Your task to perform on an android device: Open maps Image 0: 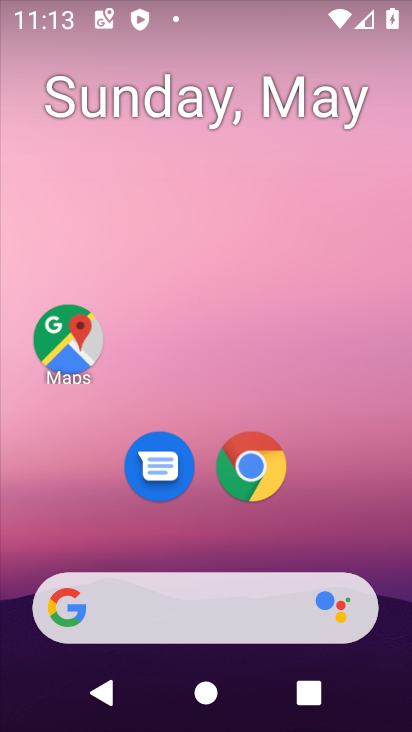
Step 0: drag from (404, 627) to (354, 7)
Your task to perform on an android device: Open maps Image 1: 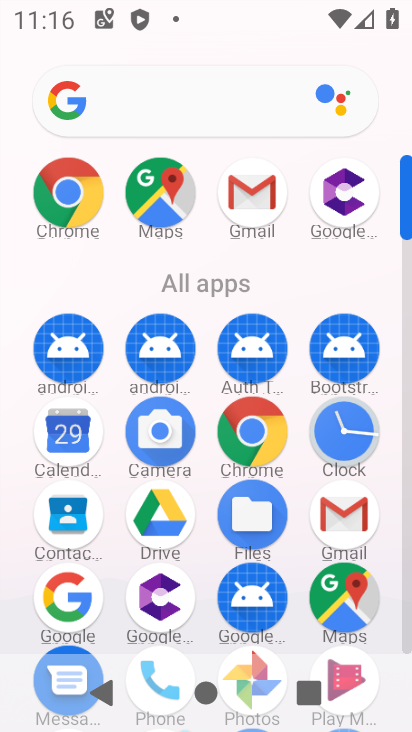
Step 1: click (327, 599)
Your task to perform on an android device: Open maps Image 2: 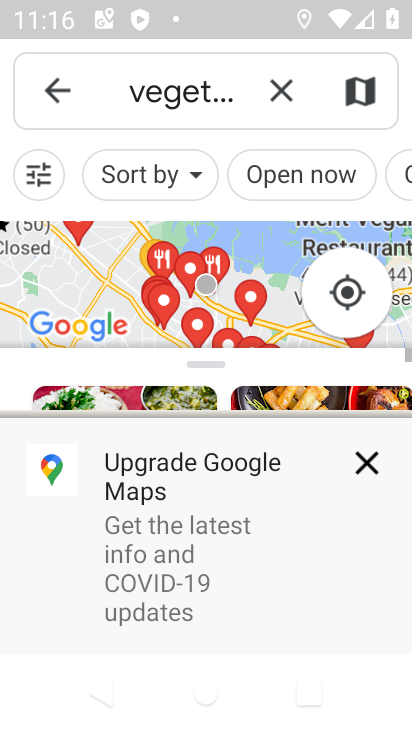
Step 2: click (274, 92)
Your task to perform on an android device: Open maps Image 3: 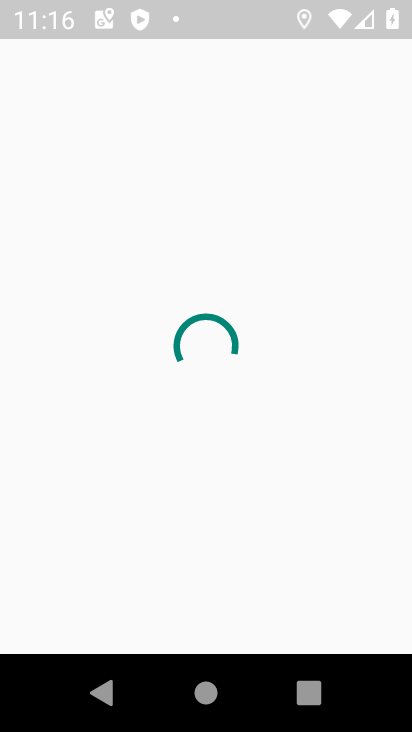
Step 3: task complete